Your task to perform on an android device: Go to ESPN.com Image 0: 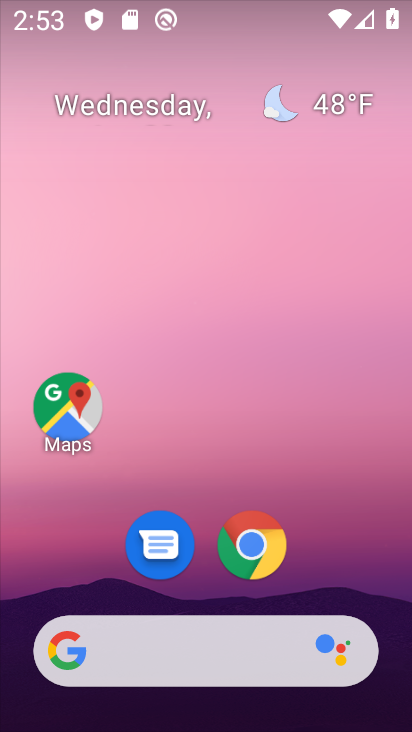
Step 0: click (270, 553)
Your task to perform on an android device: Go to ESPN.com Image 1: 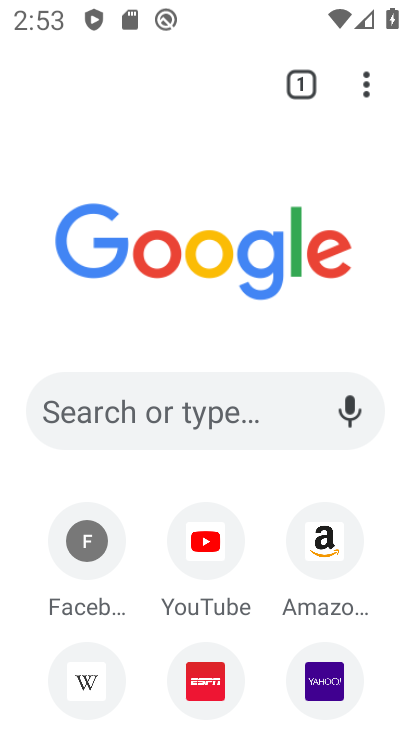
Step 1: click (210, 663)
Your task to perform on an android device: Go to ESPN.com Image 2: 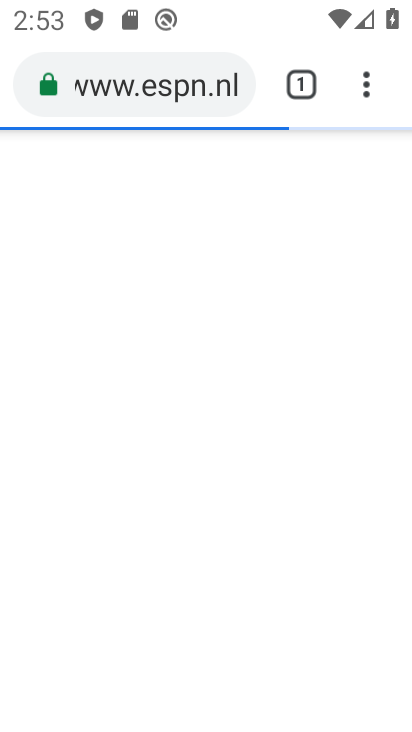
Step 2: task complete